Your task to perform on an android device: Open display settings Image 0: 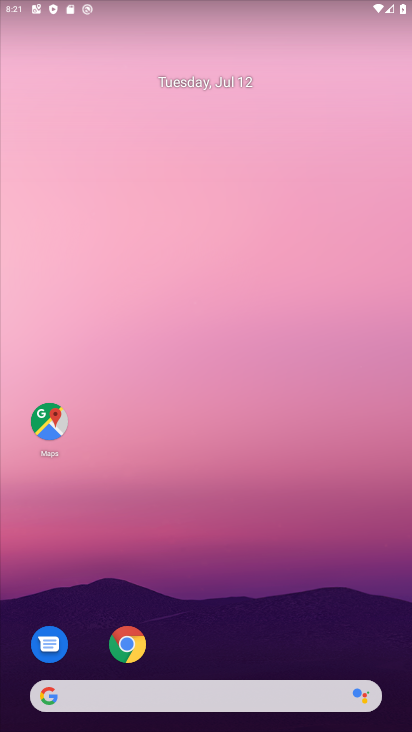
Step 0: drag from (181, 622) to (227, 146)
Your task to perform on an android device: Open display settings Image 1: 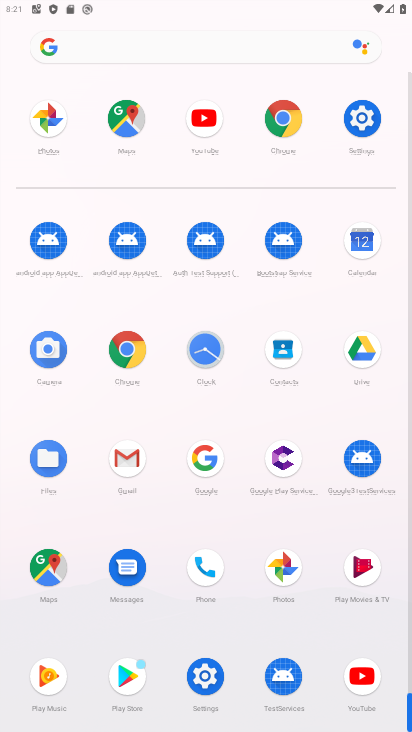
Step 1: click (363, 110)
Your task to perform on an android device: Open display settings Image 2: 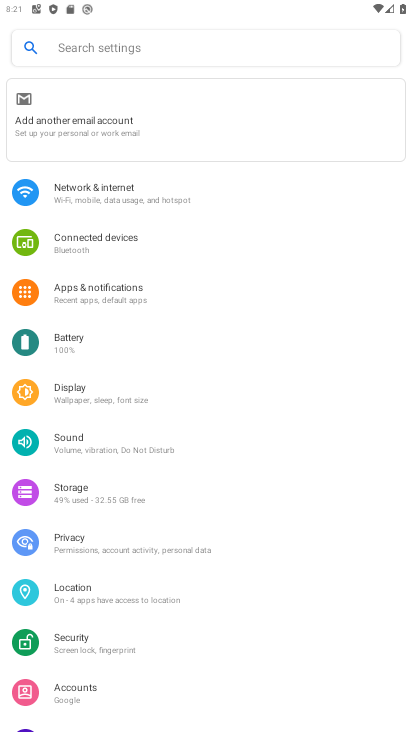
Step 2: drag from (122, 508) to (182, 194)
Your task to perform on an android device: Open display settings Image 3: 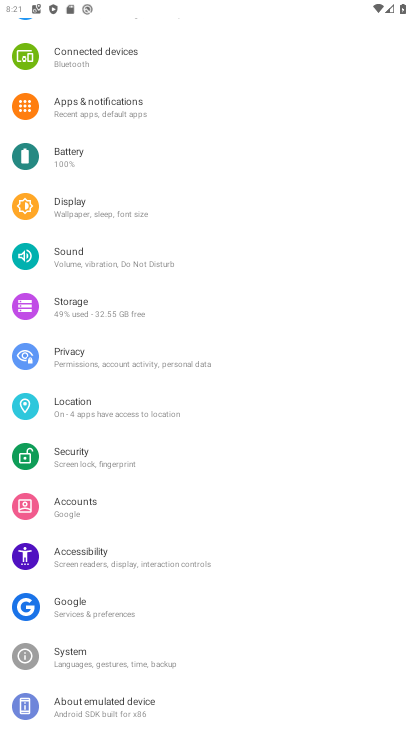
Step 3: click (138, 196)
Your task to perform on an android device: Open display settings Image 4: 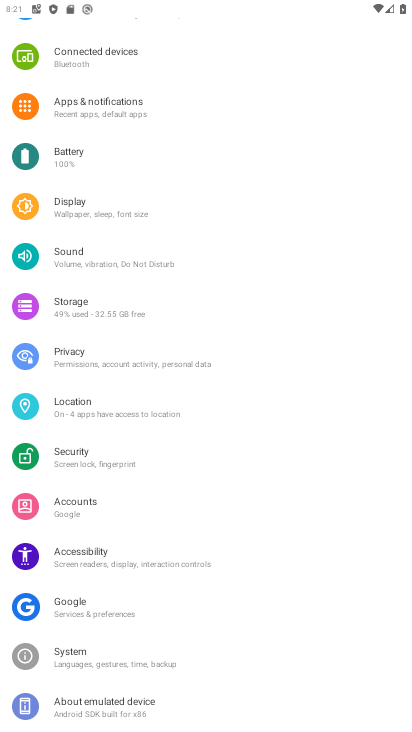
Step 4: click (95, 206)
Your task to perform on an android device: Open display settings Image 5: 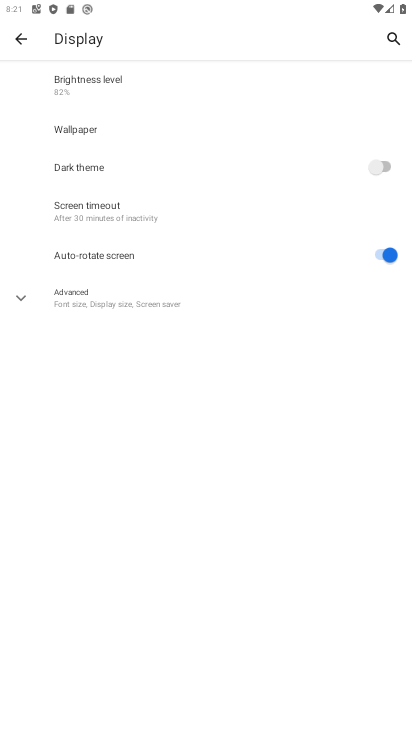
Step 5: drag from (197, 330) to (374, 3)
Your task to perform on an android device: Open display settings Image 6: 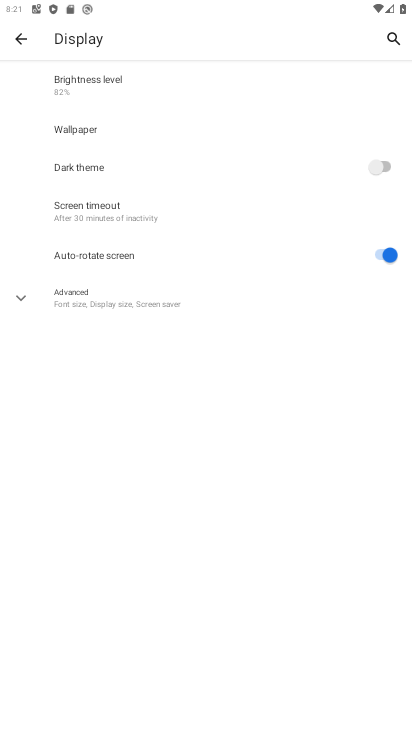
Step 6: drag from (215, 438) to (235, 300)
Your task to perform on an android device: Open display settings Image 7: 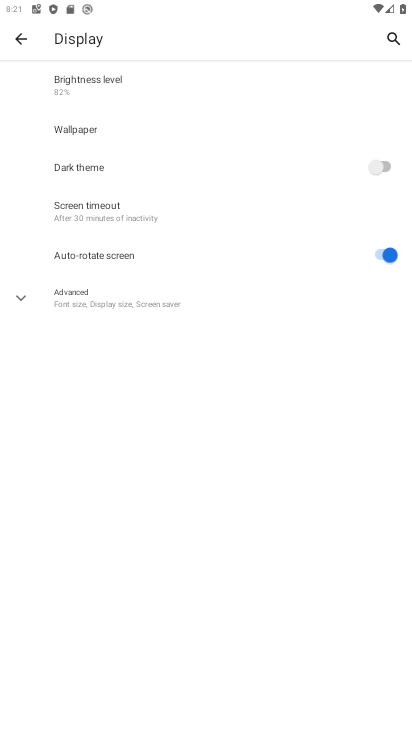
Step 7: click (96, 299)
Your task to perform on an android device: Open display settings Image 8: 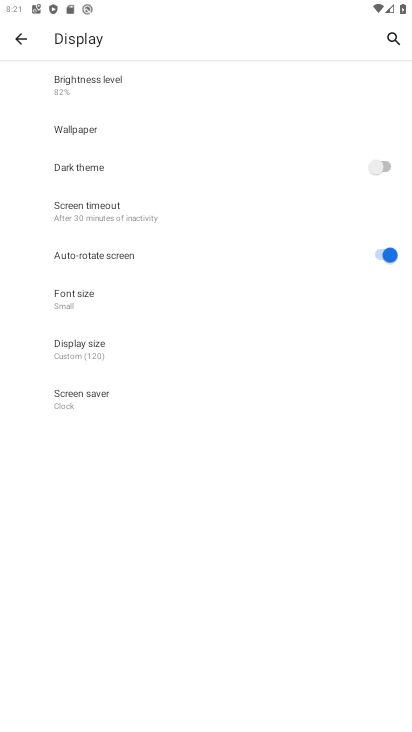
Step 8: task complete